Your task to perform on an android device: Open calendar and show me the fourth week of next month Image 0: 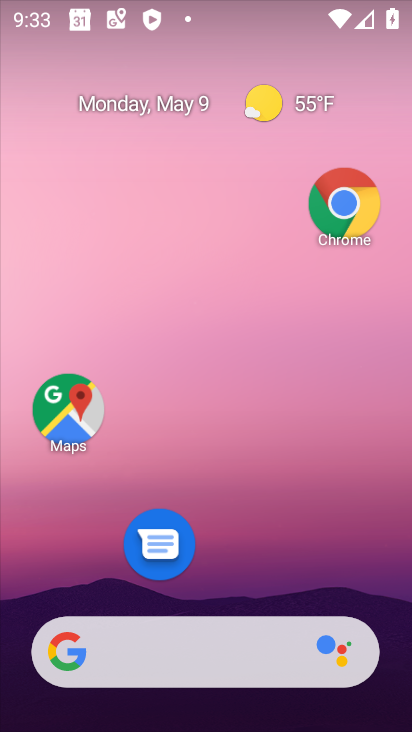
Step 0: drag from (239, 533) to (239, 178)
Your task to perform on an android device: Open calendar and show me the fourth week of next month Image 1: 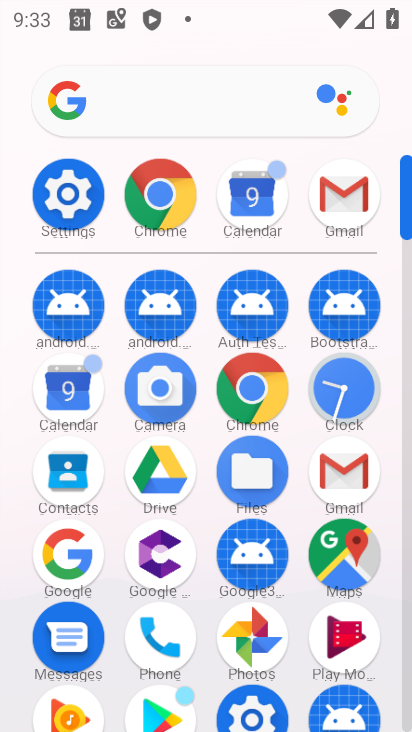
Step 1: click (61, 369)
Your task to perform on an android device: Open calendar and show me the fourth week of next month Image 2: 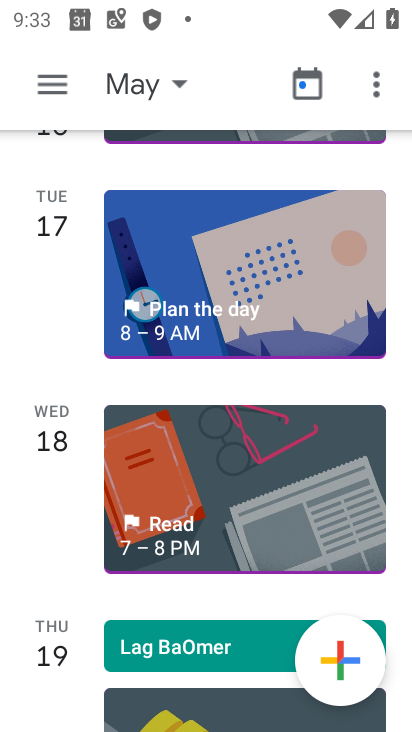
Step 2: click (163, 65)
Your task to perform on an android device: Open calendar and show me the fourth week of next month Image 3: 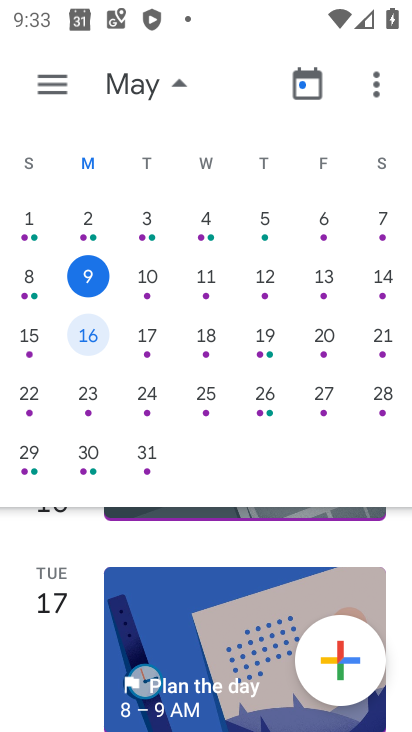
Step 3: drag from (363, 297) to (2, 267)
Your task to perform on an android device: Open calendar and show me the fourth week of next month Image 4: 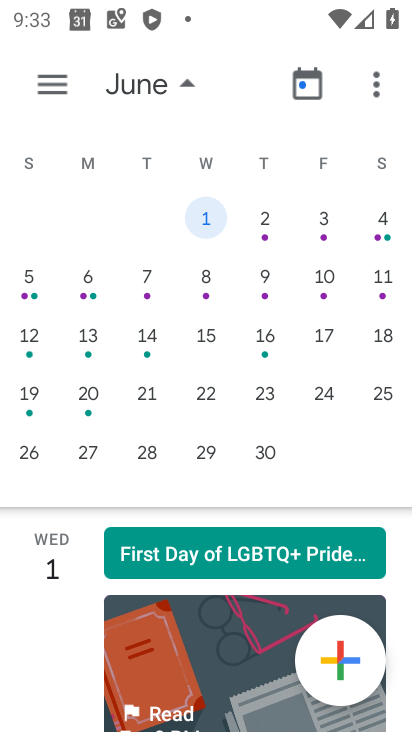
Step 4: click (85, 382)
Your task to perform on an android device: Open calendar and show me the fourth week of next month Image 5: 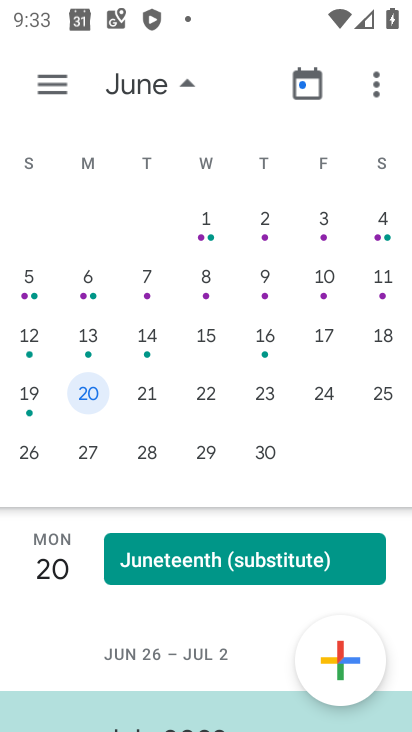
Step 5: task complete